Your task to perform on an android device: turn off notifications in google photos Image 0: 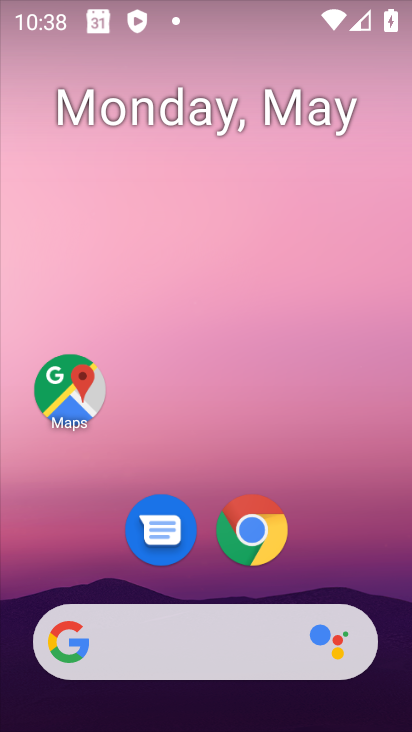
Step 0: drag from (330, 530) to (235, 58)
Your task to perform on an android device: turn off notifications in google photos Image 1: 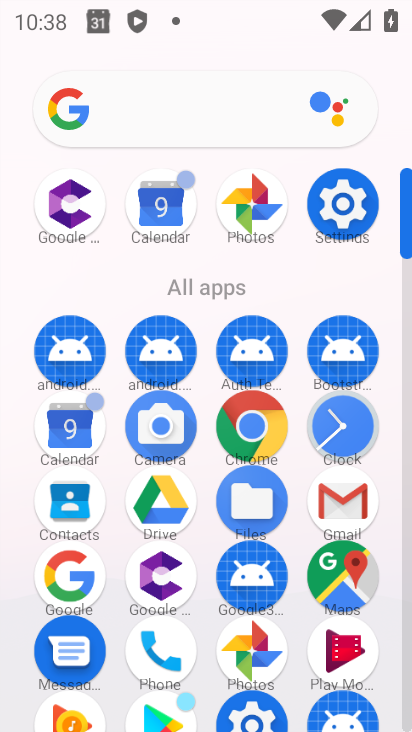
Step 1: click (252, 205)
Your task to perform on an android device: turn off notifications in google photos Image 2: 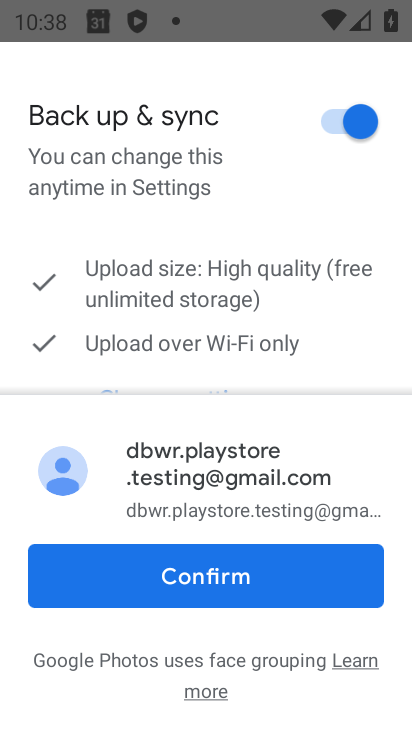
Step 2: click (215, 580)
Your task to perform on an android device: turn off notifications in google photos Image 3: 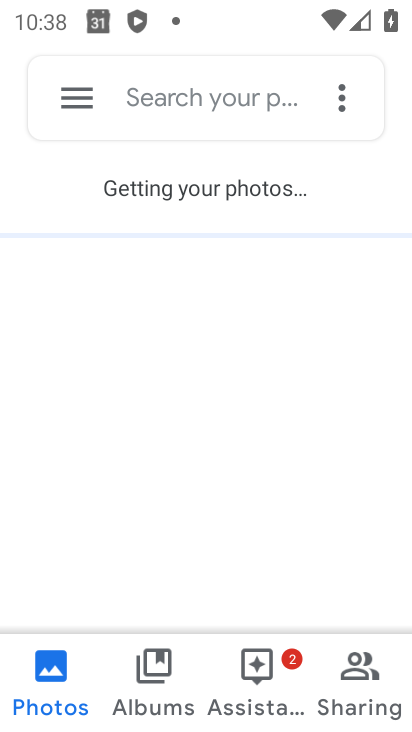
Step 3: click (66, 94)
Your task to perform on an android device: turn off notifications in google photos Image 4: 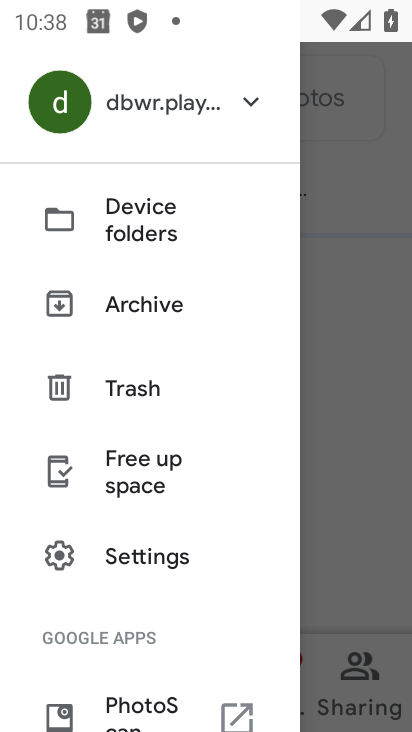
Step 4: click (149, 553)
Your task to perform on an android device: turn off notifications in google photos Image 5: 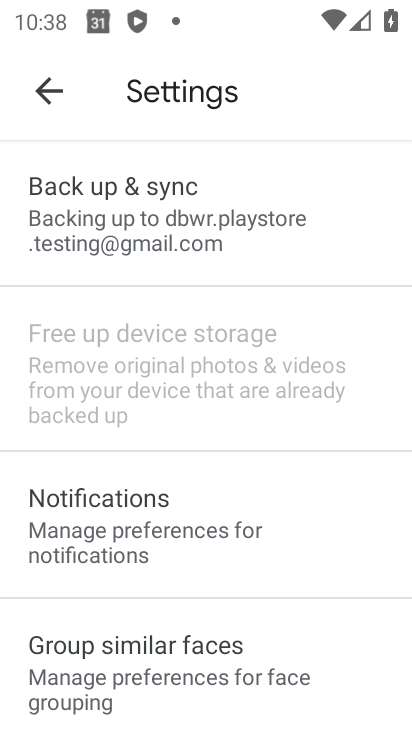
Step 5: click (124, 496)
Your task to perform on an android device: turn off notifications in google photos Image 6: 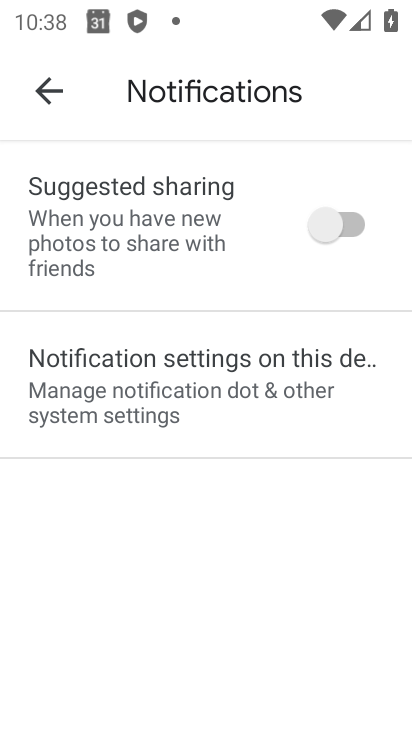
Step 6: click (185, 352)
Your task to perform on an android device: turn off notifications in google photos Image 7: 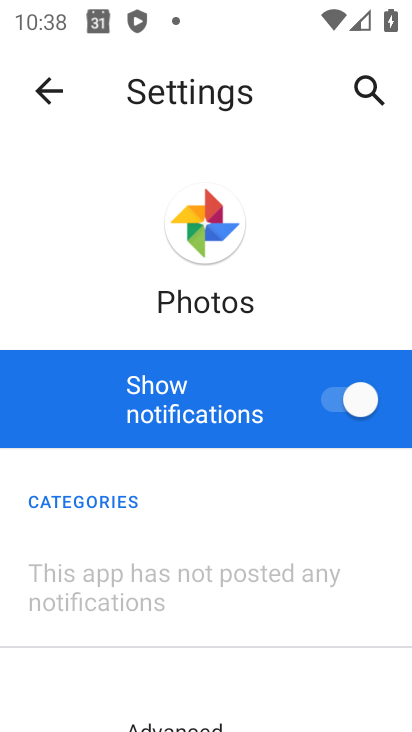
Step 7: click (363, 398)
Your task to perform on an android device: turn off notifications in google photos Image 8: 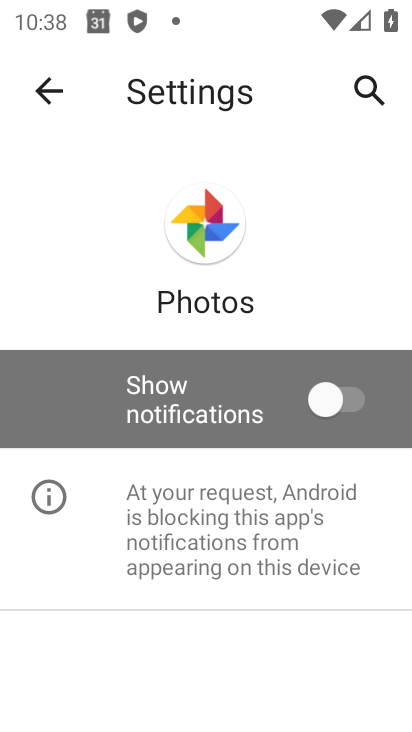
Step 8: task complete